Your task to perform on an android device: toggle location history Image 0: 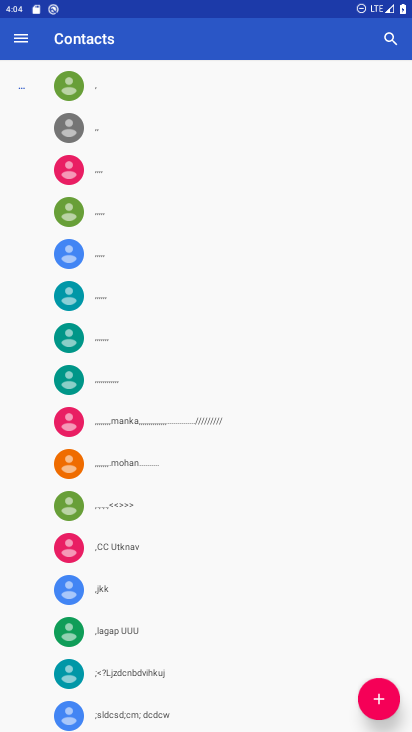
Step 0: press home button
Your task to perform on an android device: toggle location history Image 1: 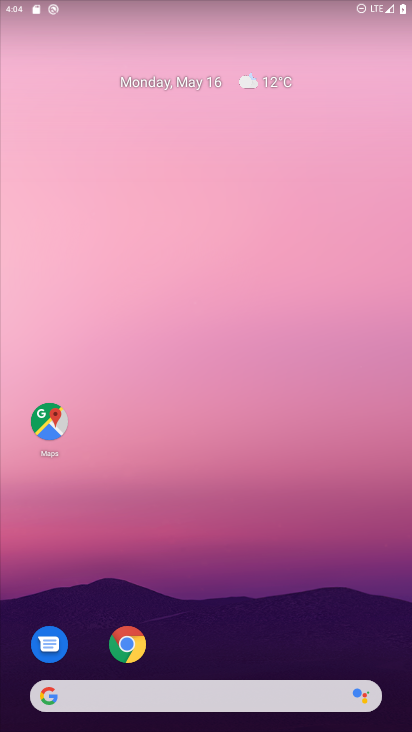
Step 1: drag from (264, 578) to (226, 46)
Your task to perform on an android device: toggle location history Image 2: 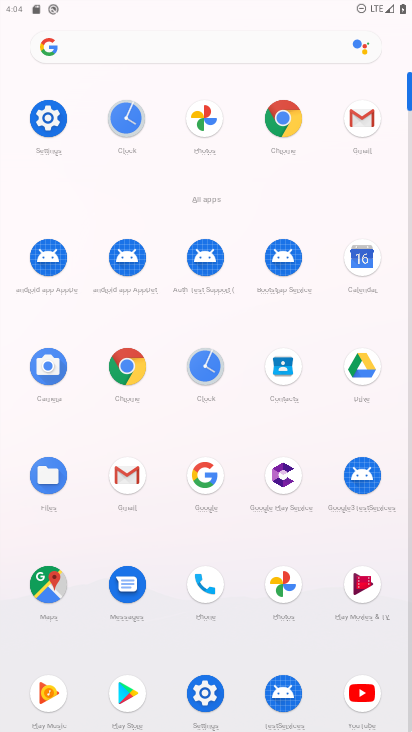
Step 2: click (36, 119)
Your task to perform on an android device: toggle location history Image 3: 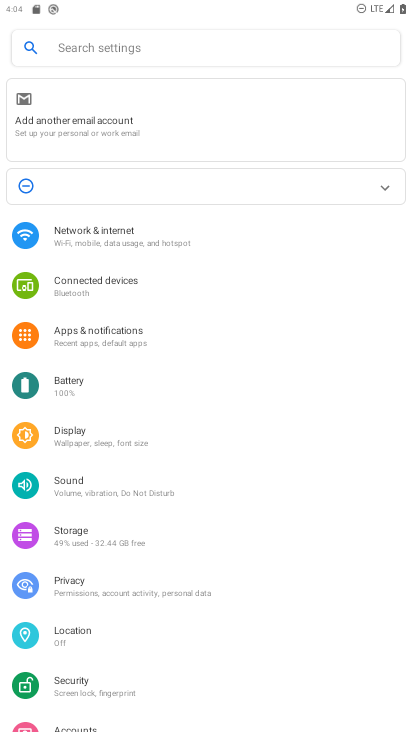
Step 3: click (141, 636)
Your task to perform on an android device: toggle location history Image 4: 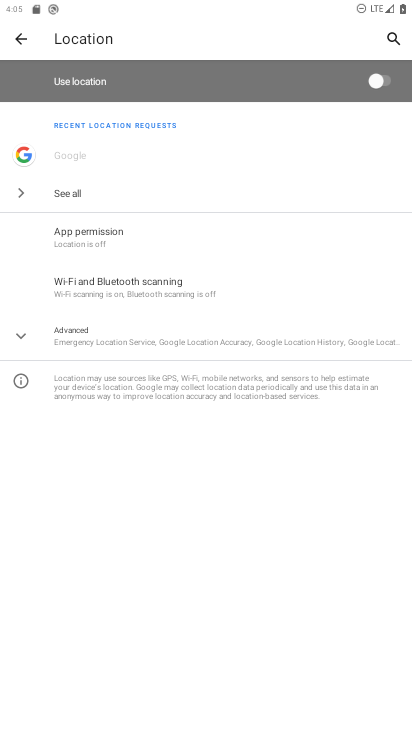
Step 4: click (133, 319)
Your task to perform on an android device: toggle location history Image 5: 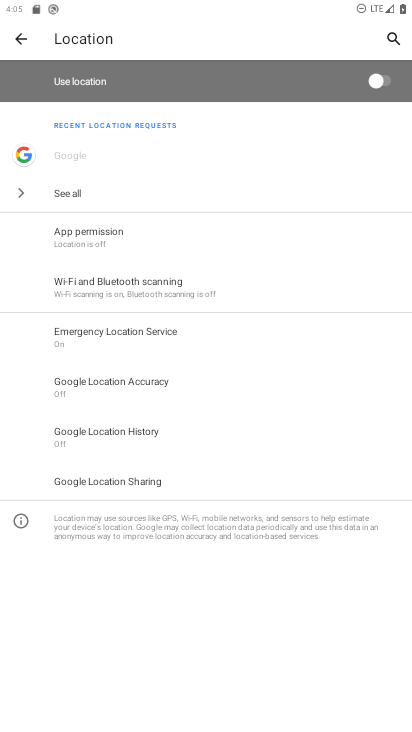
Step 5: click (147, 422)
Your task to perform on an android device: toggle location history Image 6: 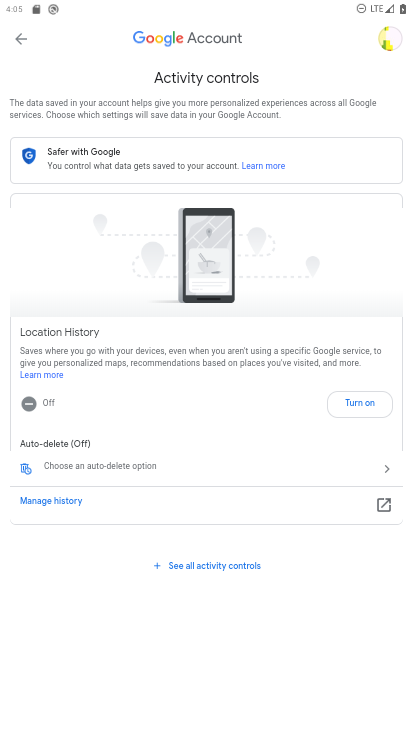
Step 6: click (363, 403)
Your task to perform on an android device: toggle location history Image 7: 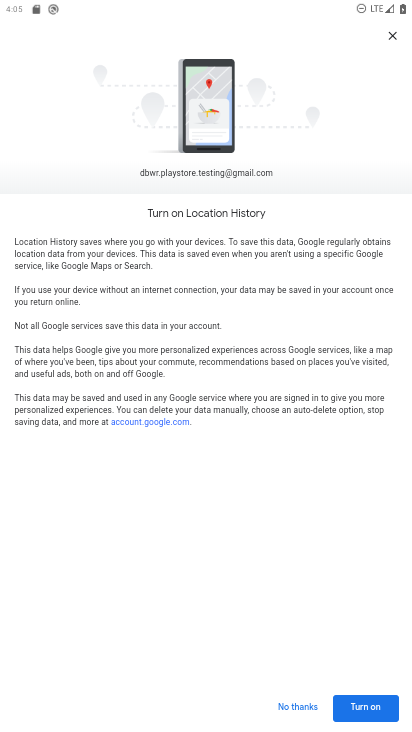
Step 7: click (369, 708)
Your task to perform on an android device: toggle location history Image 8: 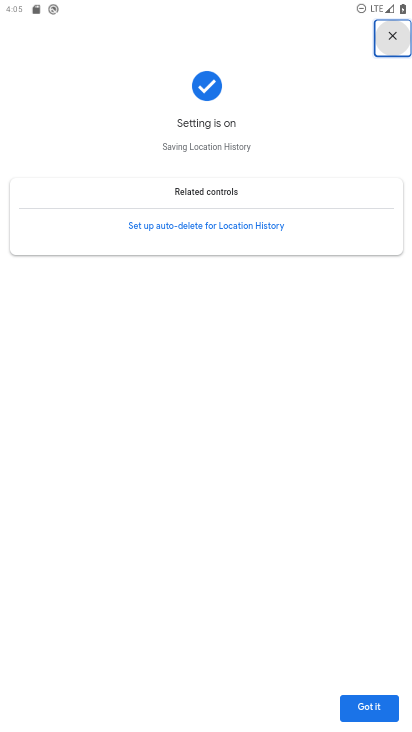
Step 8: click (377, 713)
Your task to perform on an android device: toggle location history Image 9: 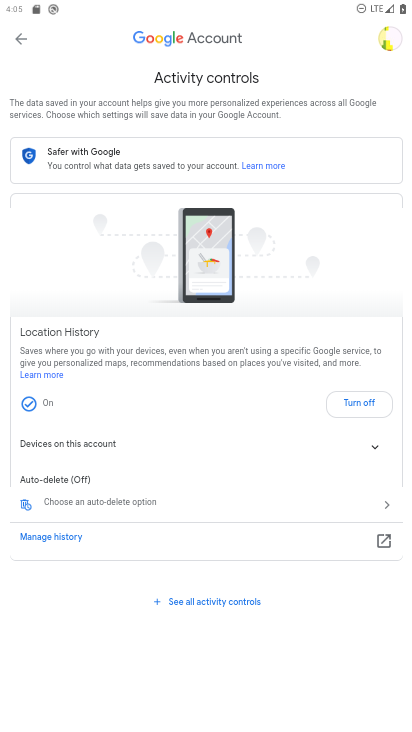
Step 9: task complete